Your task to perform on an android device: search for starred emails in the gmail app Image 0: 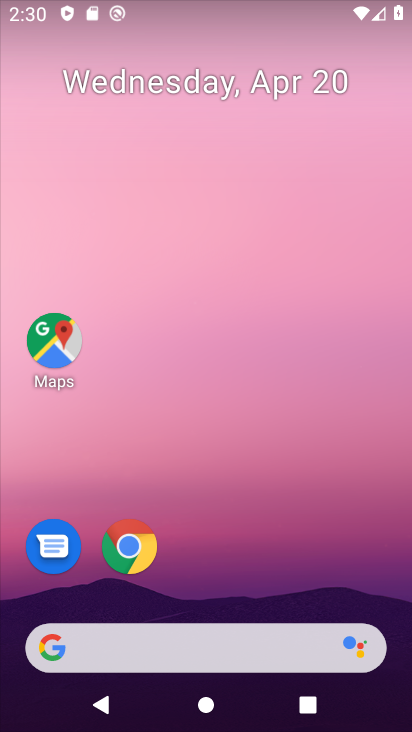
Step 0: drag from (219, 610) to (366, 42)
Your task to perform on an android device: search for starred emails in the gmail app Image 1: 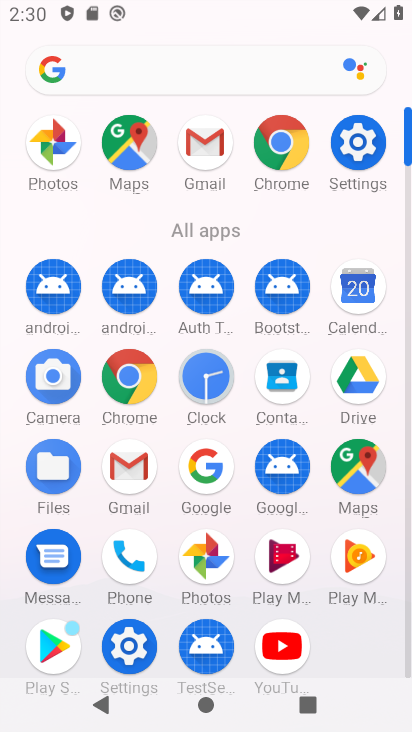
Step 1: click (123, 474)
Your task to perform on an android device: search for starred emails in the gmail app Image 2: 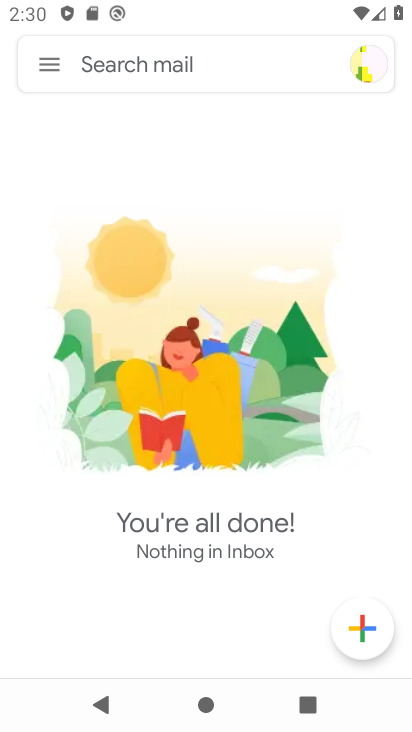
Step 2: click (60, 61)
Your task to perform on an android device: search for starred emails in the gmail app Image 3: 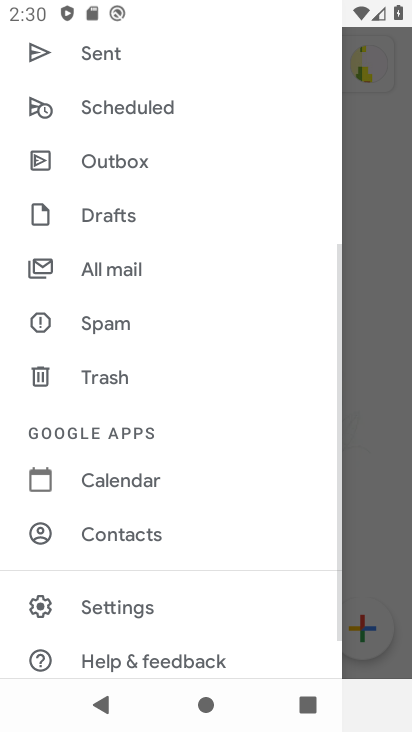
Step 3: drag from (179, 132) to (187, 415)
Your task to perform on an android device: search for starred emails in the gmail app Image 4: 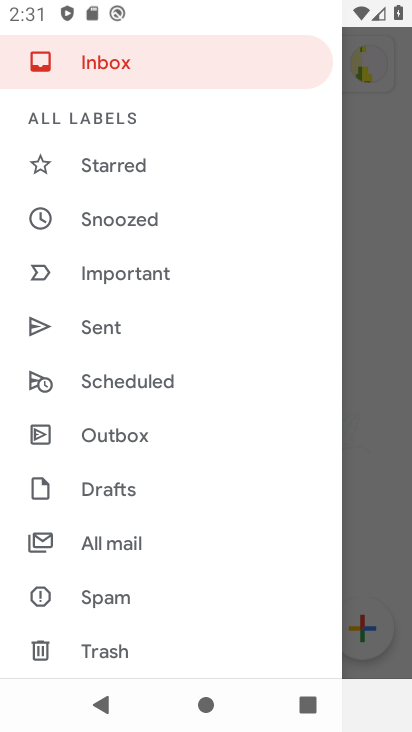
Step 4: click (134, 157)
Your task to perform on an android device: search for starred emails in the gmail app Image 5: 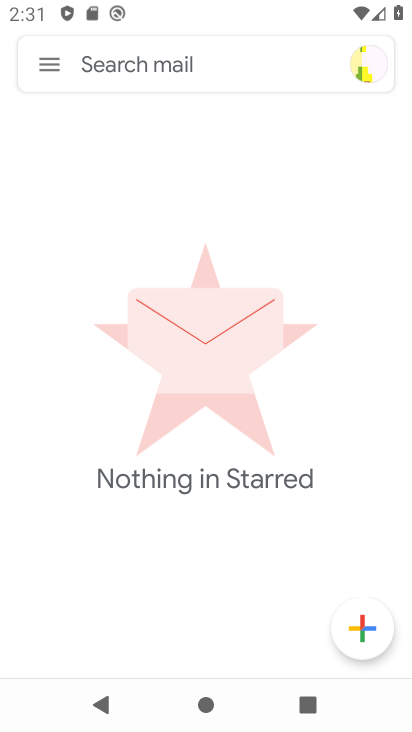
Step 5: task complete